Your task to perform on an android device: Open Amazon Image 0: 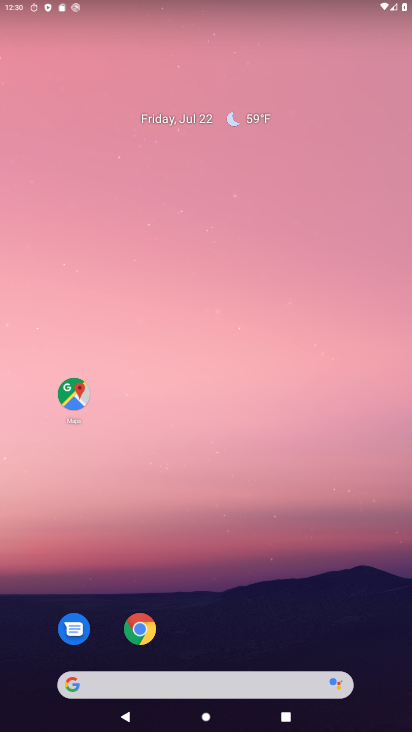
Step 0: drag from (249, 666) to (288, 126)
Your task to perform on an android device: Open Amazon Image 1: 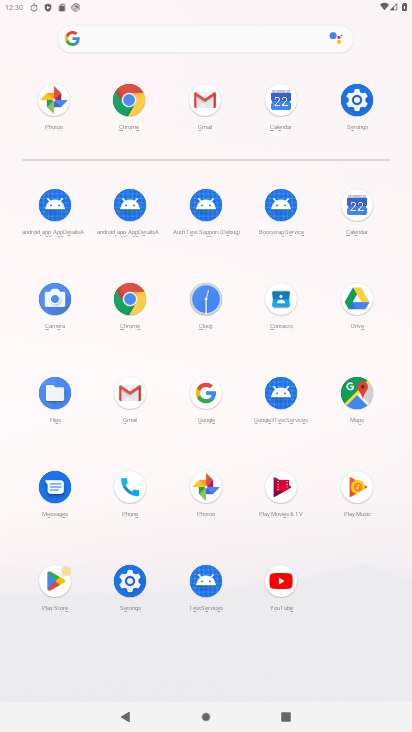
Step 1: click (142, 294)
Your task to perform on an android device: Open Amazon Image 2: 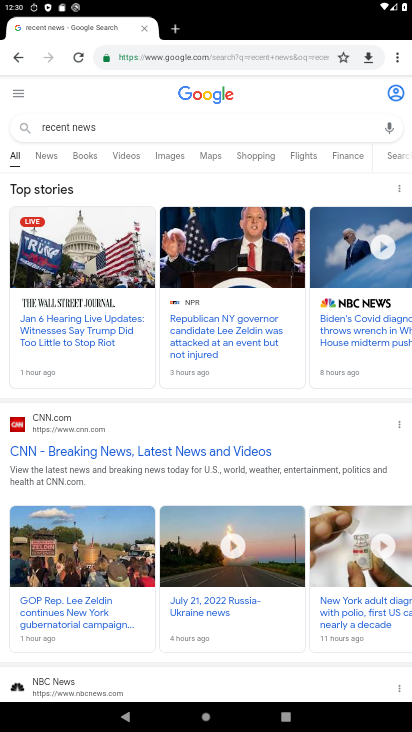
Step 2: click (215, 53)
Your task to perform on an android device: Open Amazon Image 3: 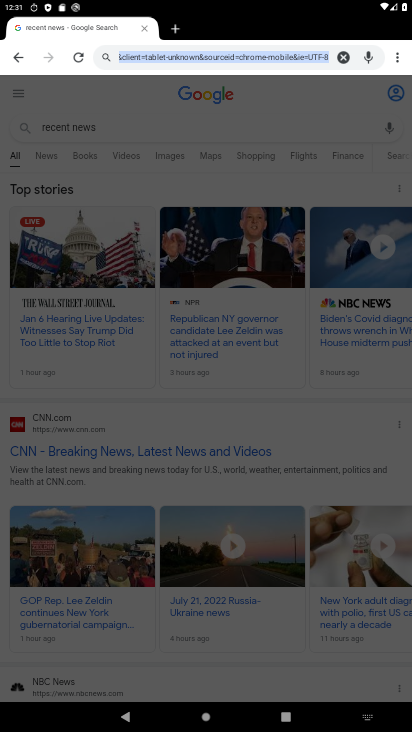
Step 3: type "amazon"
Your task to perform on an android device: Open Amazon Image 4: 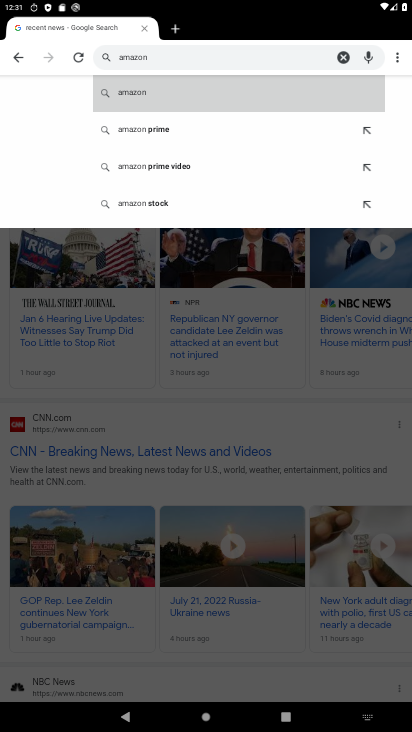
Step 4: click (188, 99)
Your task to perform on an android device: Open Amazon Image 5: 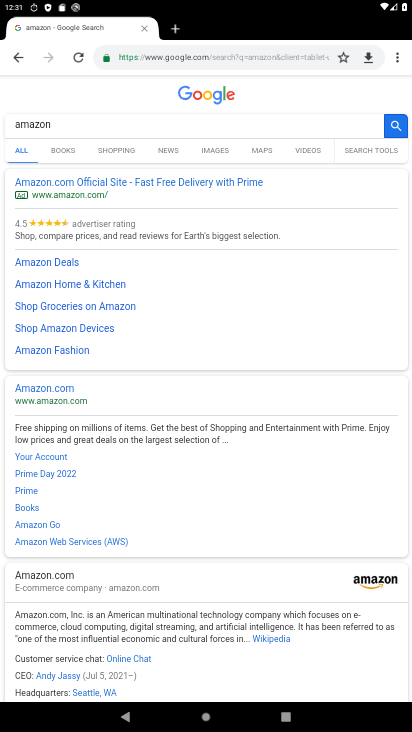
Step 5: task complete